Your task to perform on an android device: change the clock style Image 0: 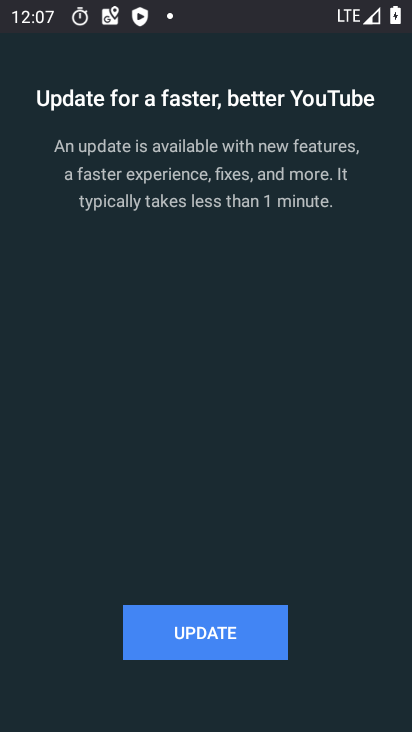
Step 0: press back button
Your task to perform on an android device: change the clock style Image 1: 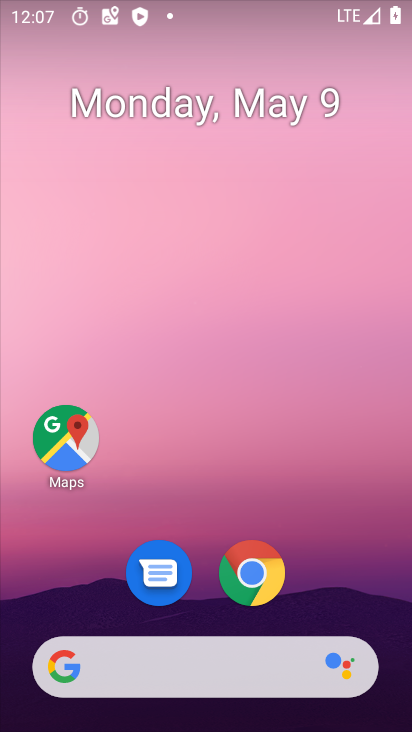
Step 1: drag from (352, 557) to (226, 42)
Your task to perform on an android device: change the clock style Image 2: 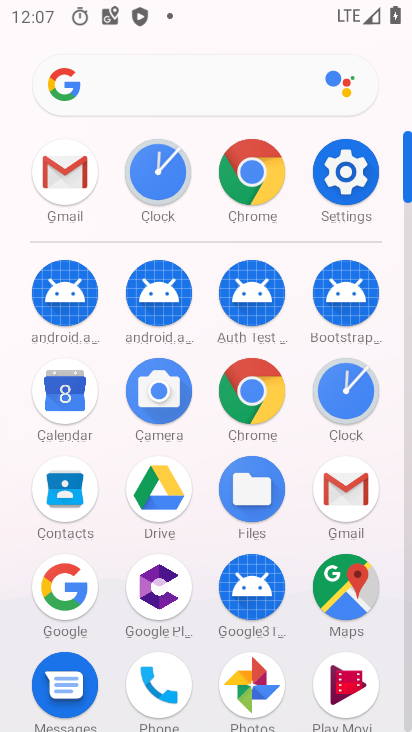
Step 2: click (159, 172)
Your task to perform on an android device: change the clock style Image 3: 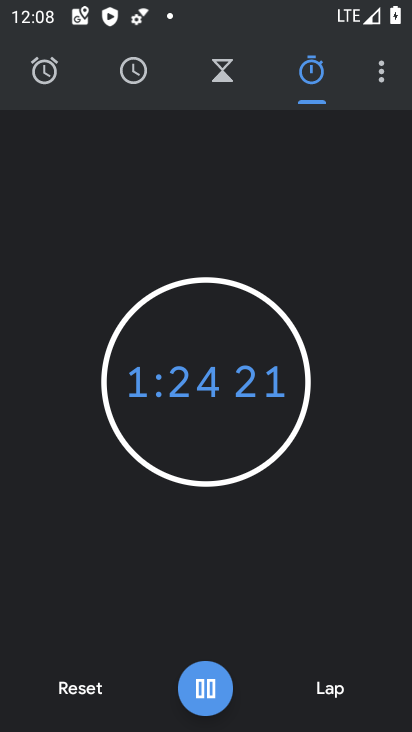
Step 3: drag from (384, 77) to (266, 136)
Your task to perform on an android device: change the clock style Image 4: 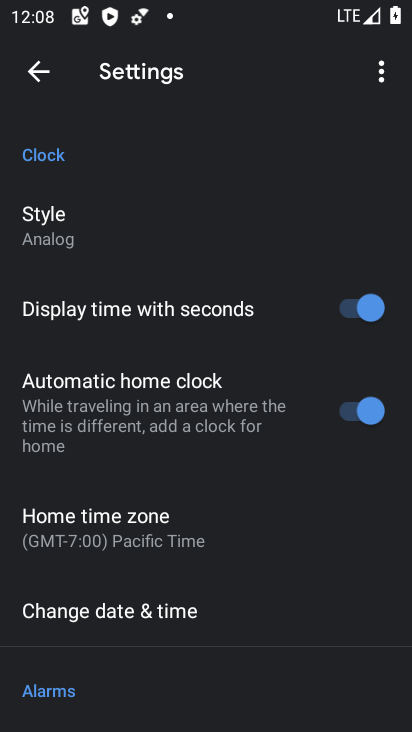
Step 4: click (101, 203)
Your task to perform on an android device: change the clock style Image 5: 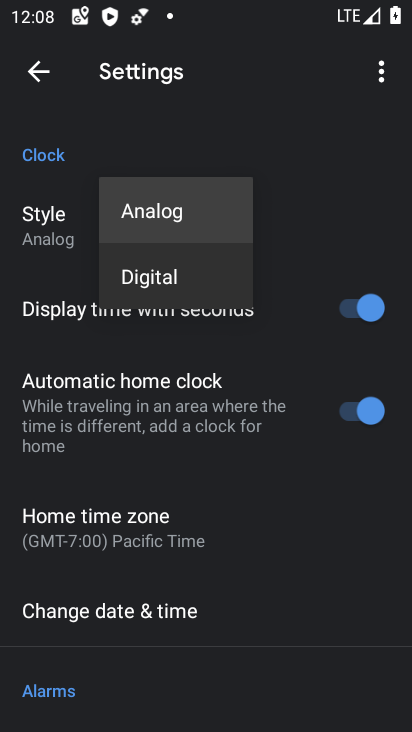
Step 5: click (157, 270)
Your task to perform on an android device: change the clock style Image 6: 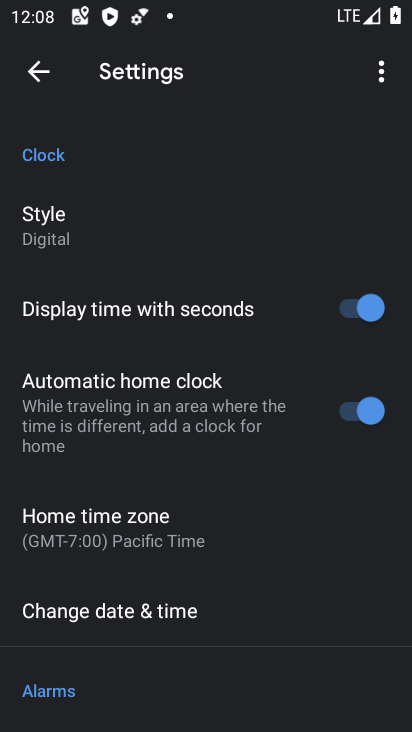
Step 6: task complete